Your task to perform on an android device: stop showing notifications on the lock screen Image 0: 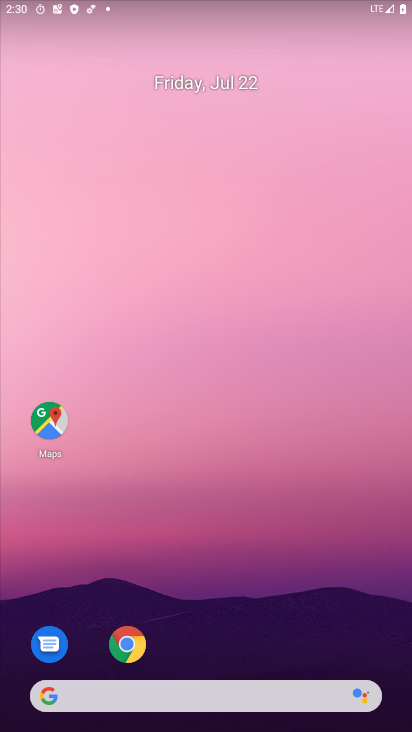
Step 0: drag from (211, 570) to (231, 332)
Your task to perform on an android device: stop showing notifications on the lock screen Image 1: 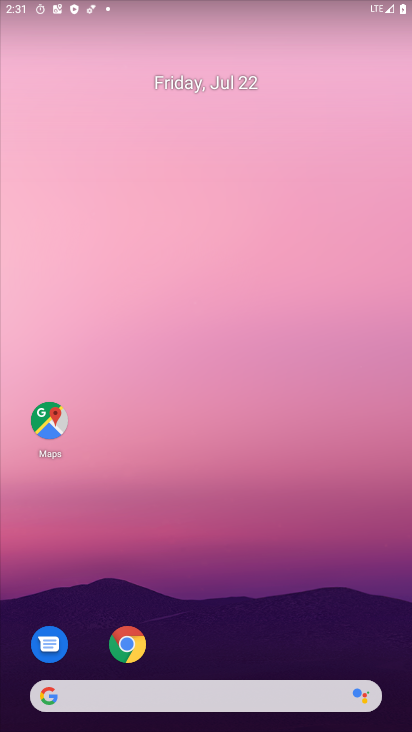
Step 1: drag from (201, 659) to (256, 202)
Your task to perform on an android device: stop showing notifications on the lock screen Image 2: 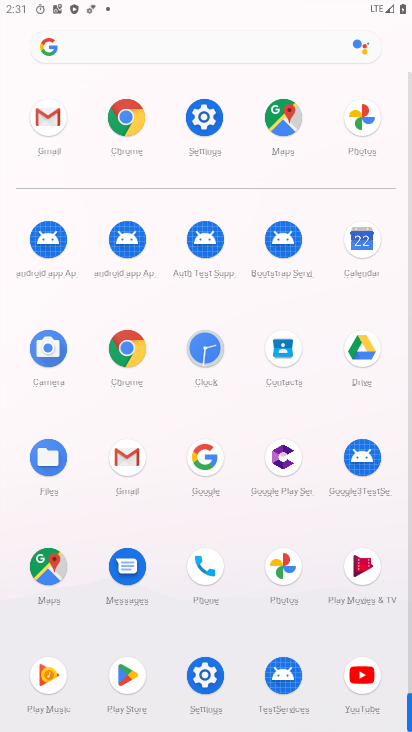
Step 2: click (210, 149)
Your task to perform on an android device: stop showing notifications on the lock screen Image 3: 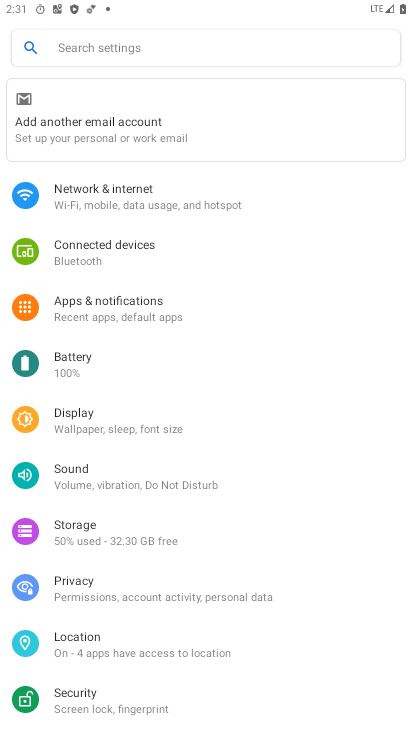
Step 3: click (137, 318)
Your task to perform on an android device: stop showing notifications on the lock screen Image 4: 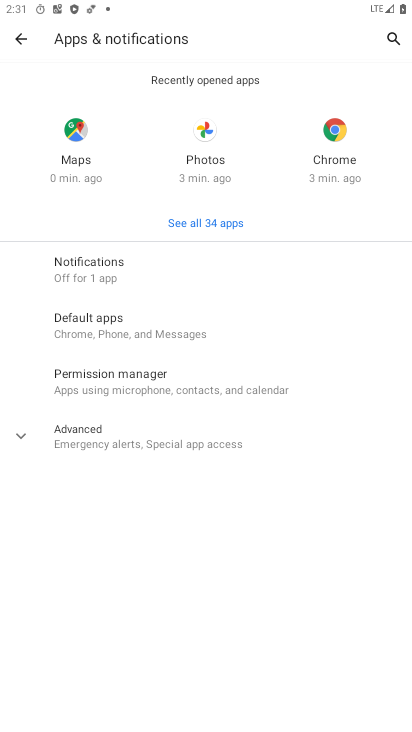
Step 4: click (144, 278)
Your task to perform on an android device: stop showing notifications on the lock screen Image 5: 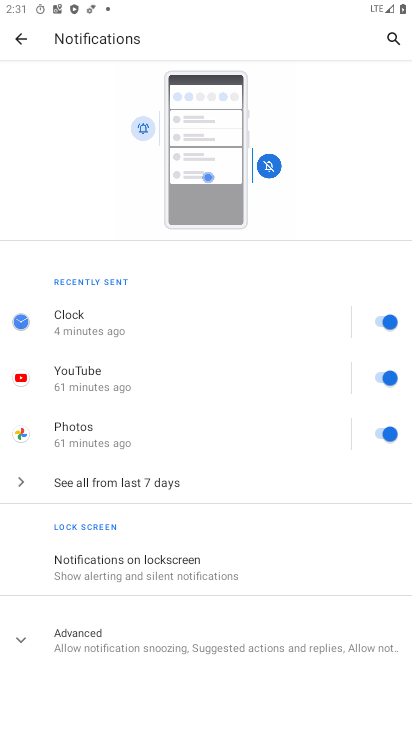
Step 5: click (174, 564)
Your task to perform on an android device: stop showing notifications on the lock screen Image 6: 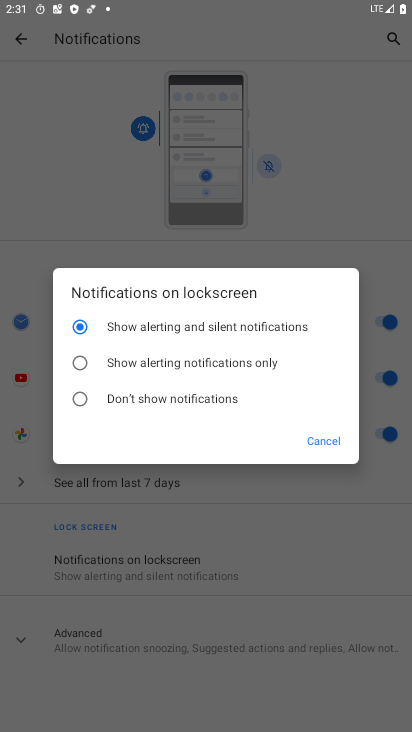
Step 6: click (177, 398)
Your task to perform on an android device: stop showing notifications on the lock screen Image 7: 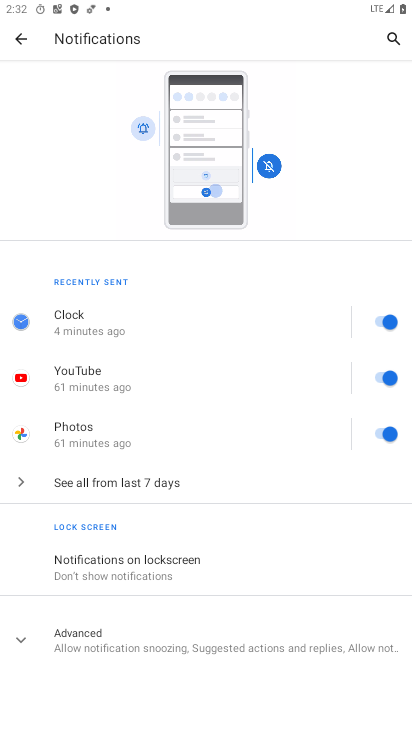
Step 7: click (185, 565)
Your task to perform on an android device: stop showing notifications on the lock screen Image 8: 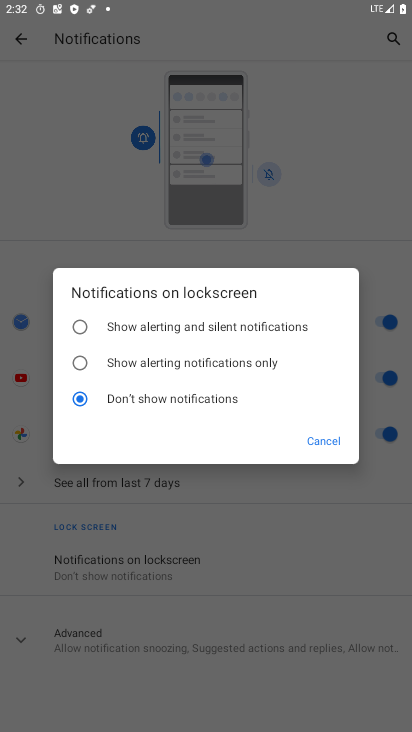
Step 8: task complete